Your task to perform on an android device: What is the news today? Image 0: 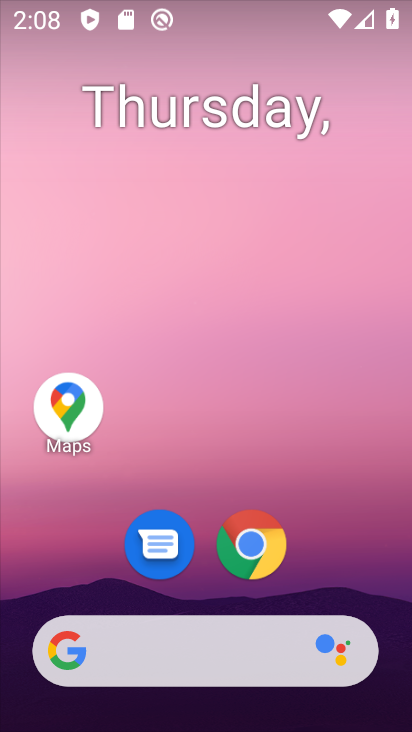
Step 0: click (259, 566)
Your task to perform on an android device: What is the news today? Image 1: 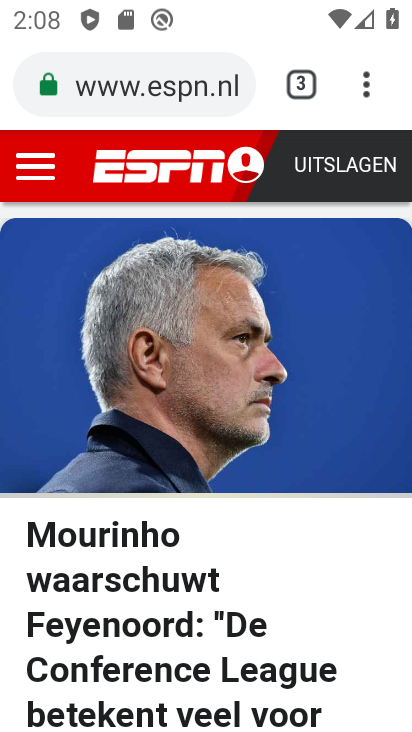
Step 1: click (307, 82)
Your task to perform on an android device: What is the news today? Image 2: 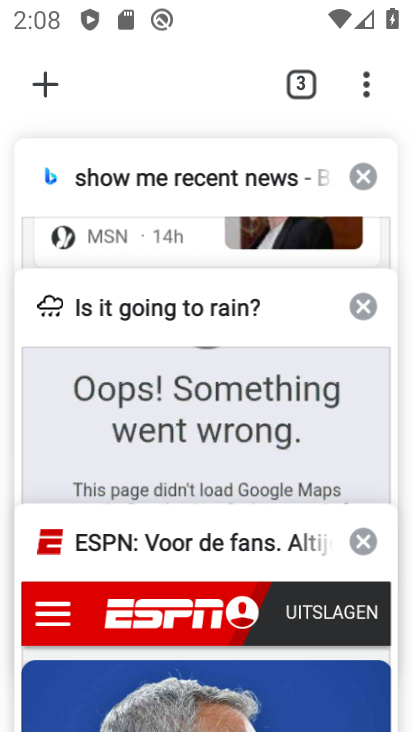
Step 2: click (47, 79)
Your task to perform on an android device: What is the news today? Image 3: 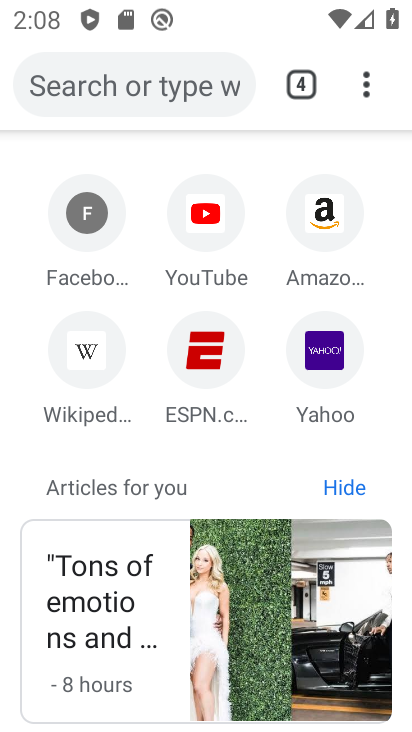
Step 3: click (169, 88)
Your task to perform on an android device: What is the news today? Image 4: 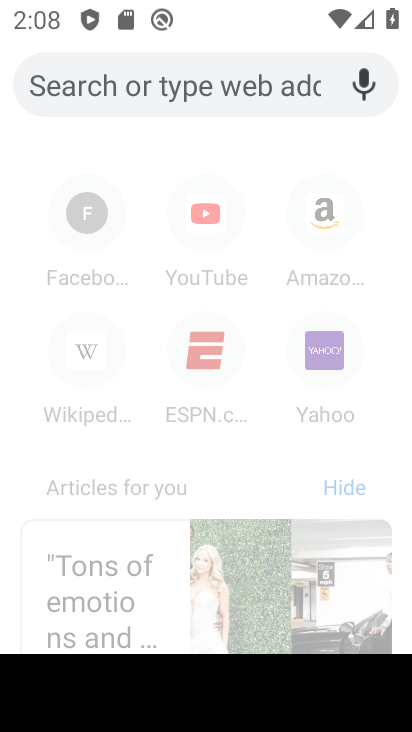
Step 4: type "what is the news today?"
Your task to perform on an android device: What is the news today? Image 5: 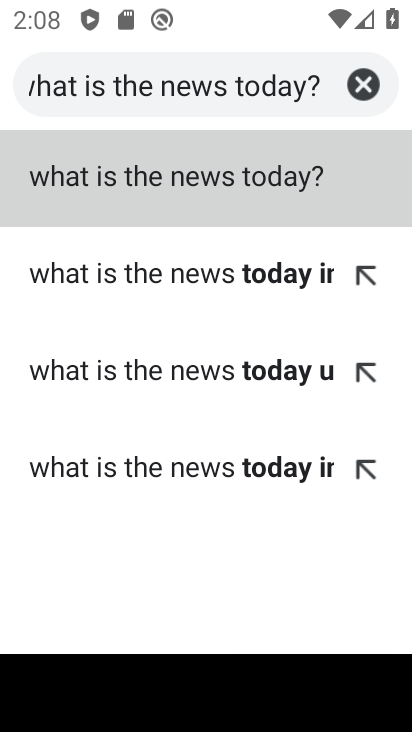
Step 5: click (187, 185)
Your task to perform on an android device: What is the news today? Image 6: 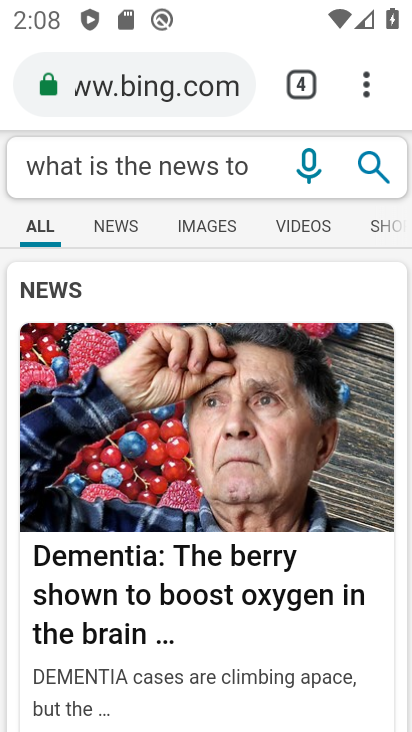
Step 6: drag from (180, 647) to (192, 398)
Your task to perform on an android device: What is the news today? Image 7: 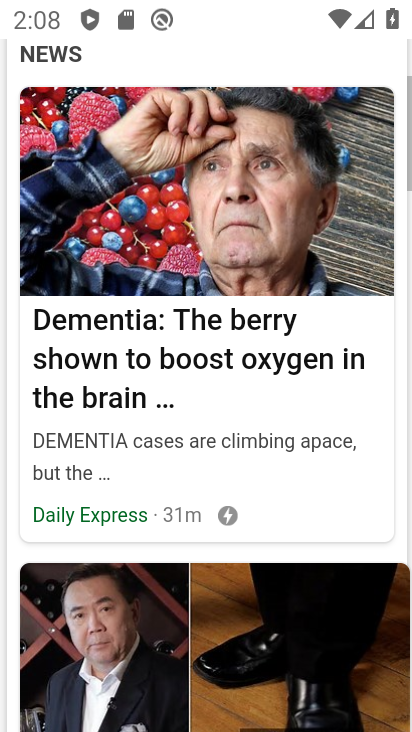
Step 7: click (206, 326)
Your task to perform on an android device: What is the news today? Image 8: 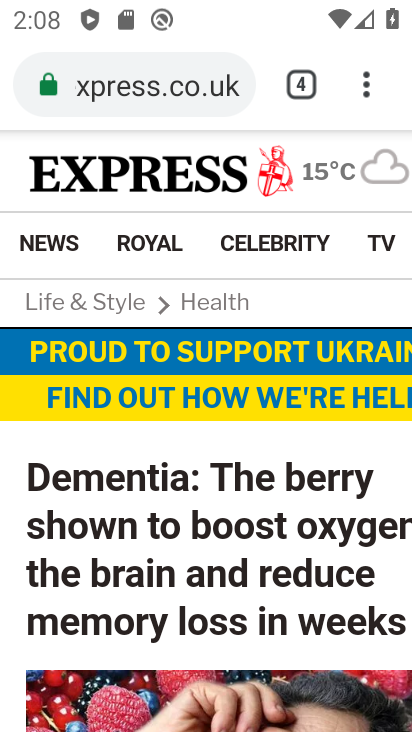
Step 8: drag from (174, 670) to (211, 205)
Your task to perform on an android device: What is the news today? Image 9: 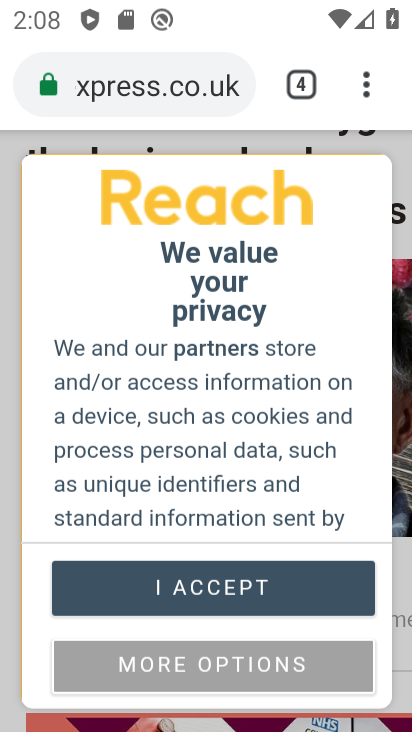
Step 9: press back button
Your task to perform on an android device: What is the news today? Image 10: 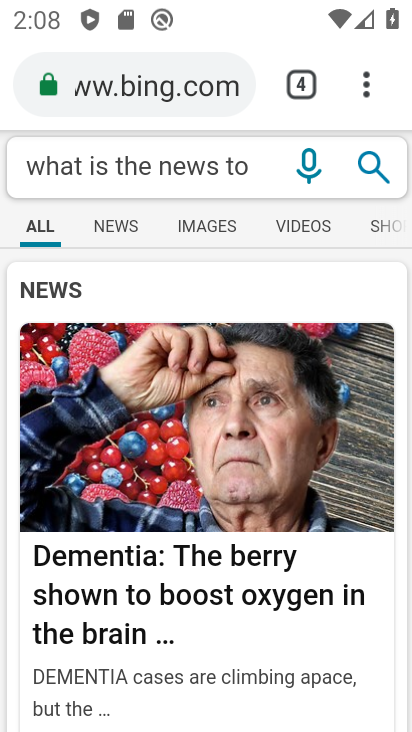
Step 10: drag from (181, 664) to (189, 201)
Your task to perform on an android device: What is the news today? Image 11: 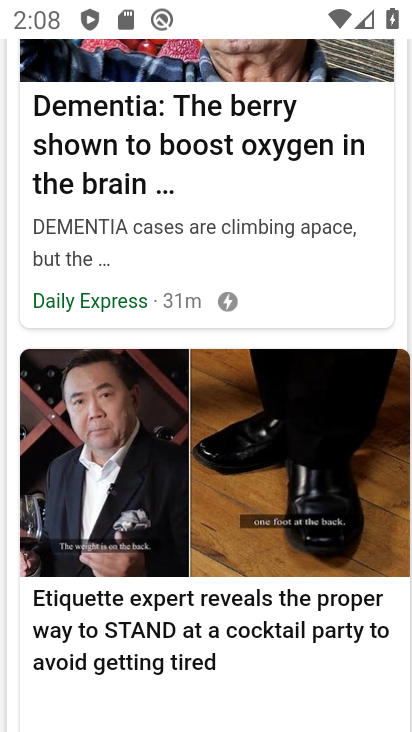
Step 11: drag from (262, 671) to (245, 355)
Your task to perform on an android device: What is the news today? Image 12: 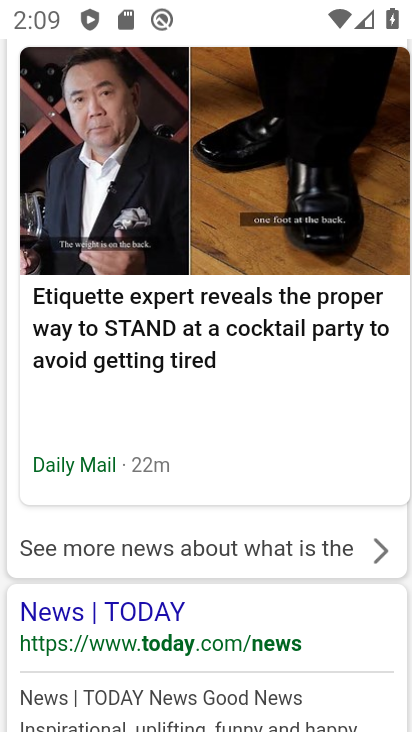
Step 12: click (350, 549)
Your task to perform on an android device: What is the news today? Image 13: 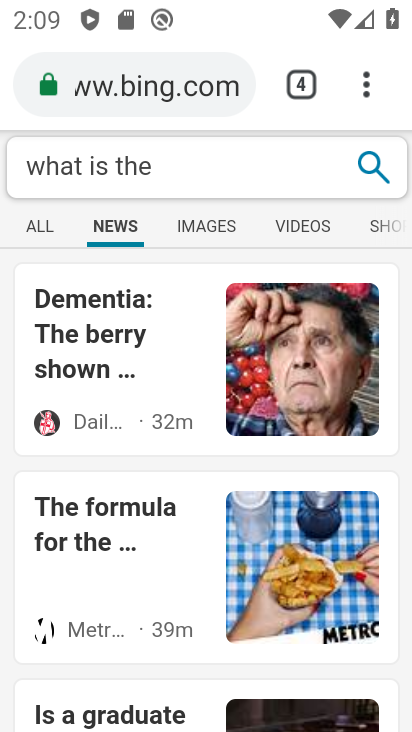
Step 13: task complete